Your task to perform on an android device: Open calendar and show me the third week of next month Image 0: 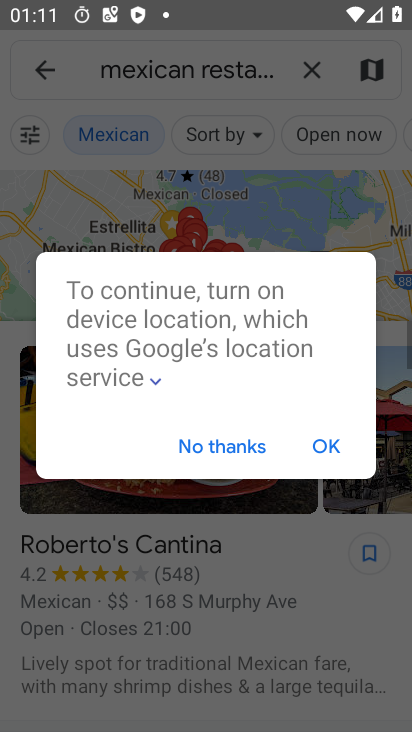
Step 0: press home button
Your task to perform on an android device: Open calendar and show me the third week of next month Image 1: 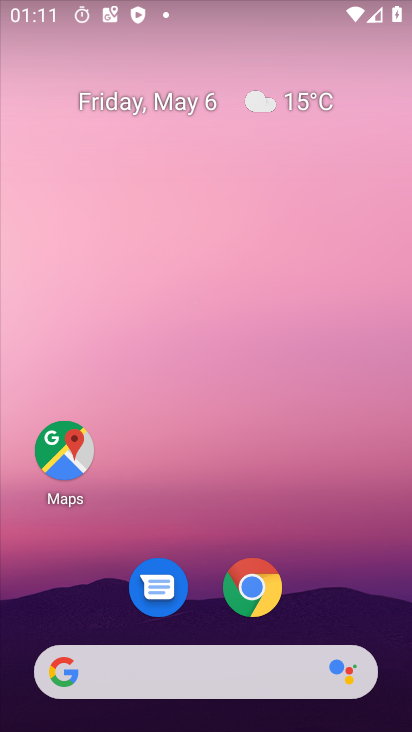
Step 1: drag from (393, 656) to (380, 293)
Your task to perform on an android device: Open calendar and show me the third week of next month Image 2: 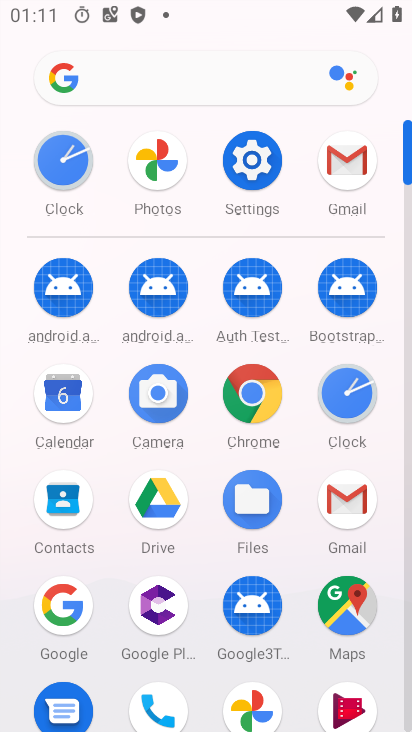
Step 2: click (53, 405)
Your task to perform on an android device: Open calendar and show me the third week of next month Image 3: 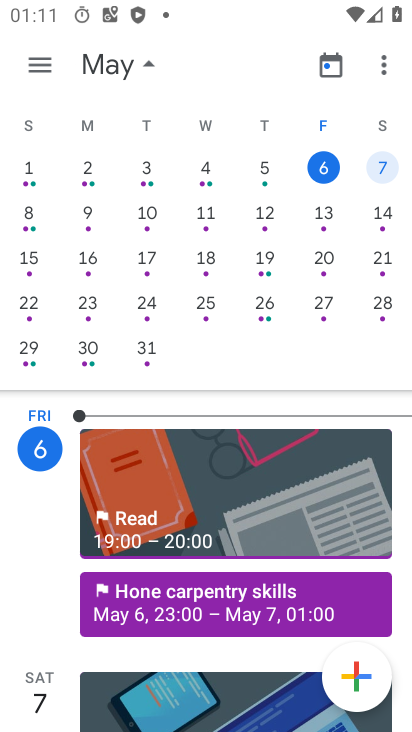
Step 3: drag from (391, 277) to (95, 262)
Your task to perform on an android device: Open calendar and show me the third week of next month Image 4: 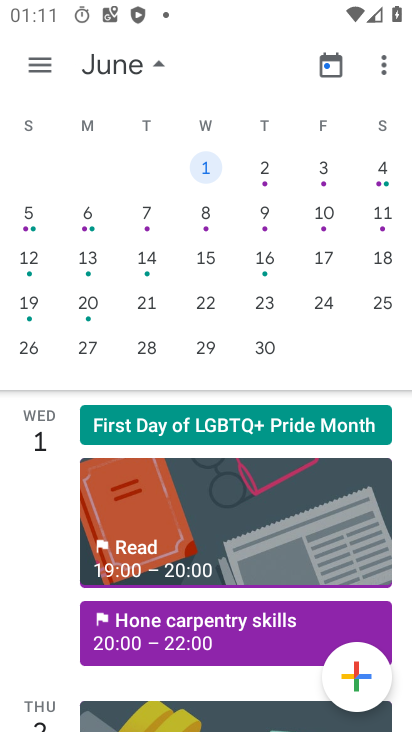
Step 4: click (262, 258)
Your task to perform on an android device: Open calendar and show me the third week of next month Image 5: 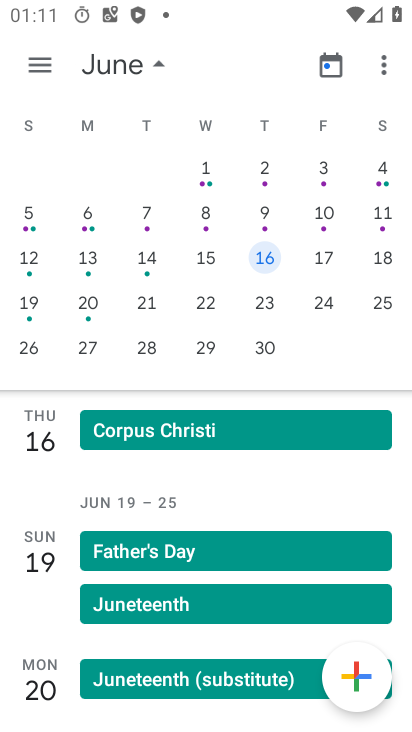
Step 5: task complete